Your task to perform on an android device: Show me the alarms in the clock app Image 0: 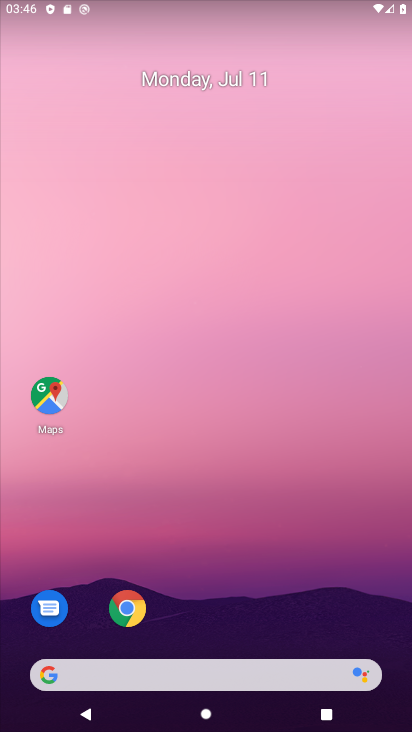
Step 0: drag from (238, 709) to (239, 46)
Your task to perform on an android device: Show me the alarms in the clock app Image 1: 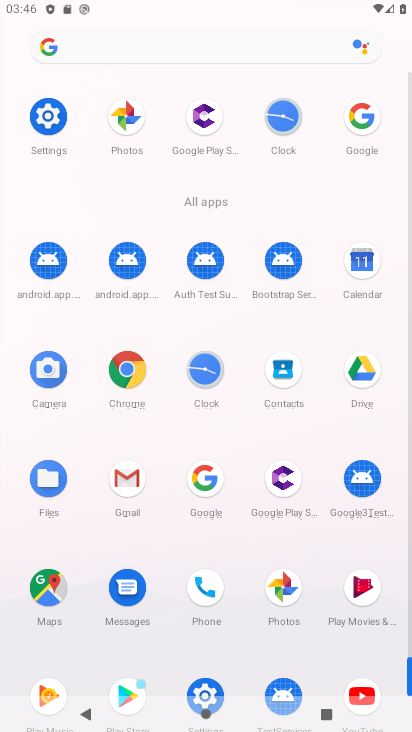
Step 1: click (280, 114)
Your task to perform on an android device: Show me the alarms in the clock app Image 2: 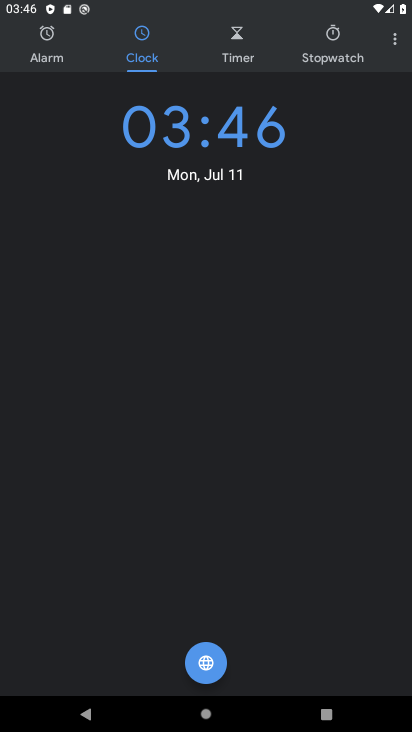
Step 2: click (58, 52)
Your task to perform on an android device: Show me the alarms in the clock app Image 3: 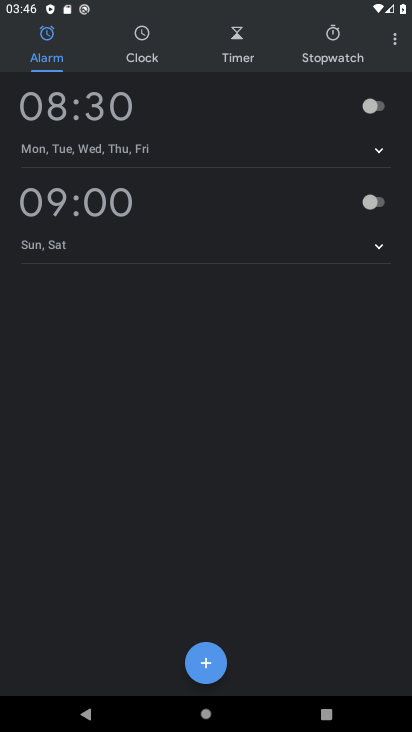
Step 3: task complete